Your task to perform on an android device: Open Yahoo.com Image 0: 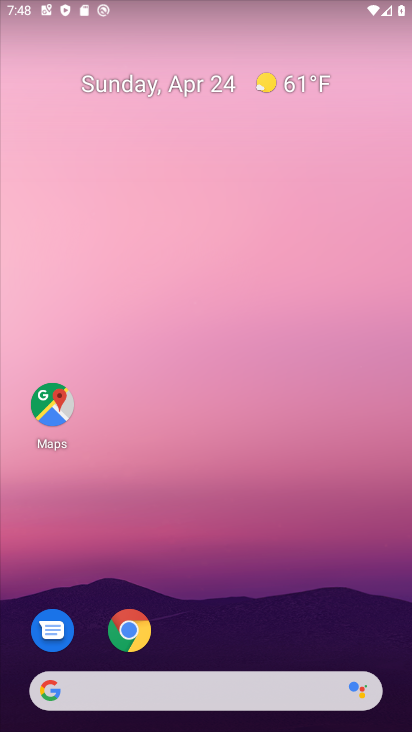
Step 0: drag from (320, 623) to (329, 167)
Your task to perform on an android device: Open Yahoo.com Image 1: 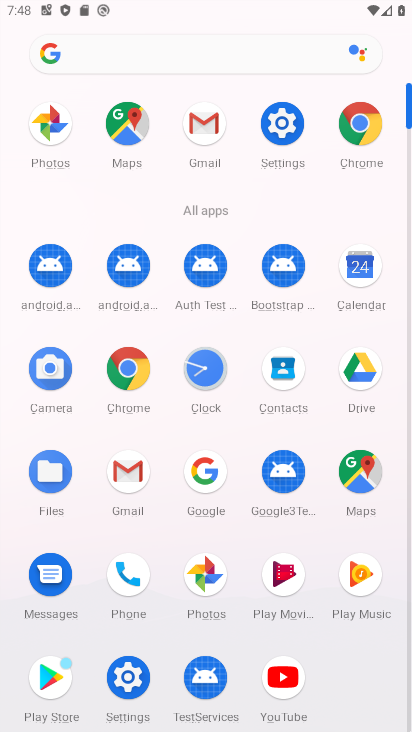
Step 1: click (372, 134)
Your task to perform on an android device: Open Yahoo.com Image 2: 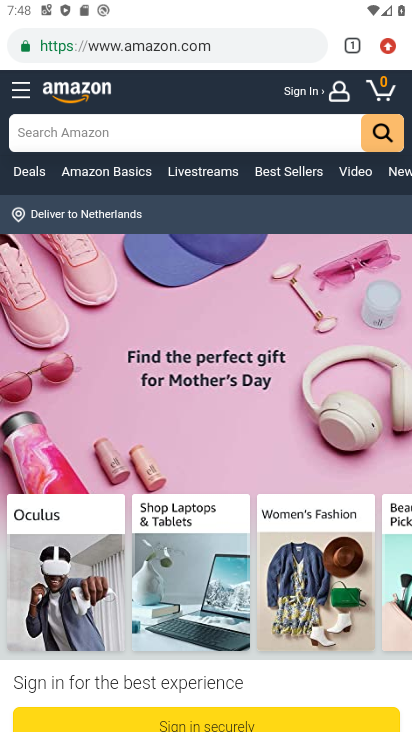
Step 2: press back button
Your task to perform on an android device: Open Yahoo.com Image 3: 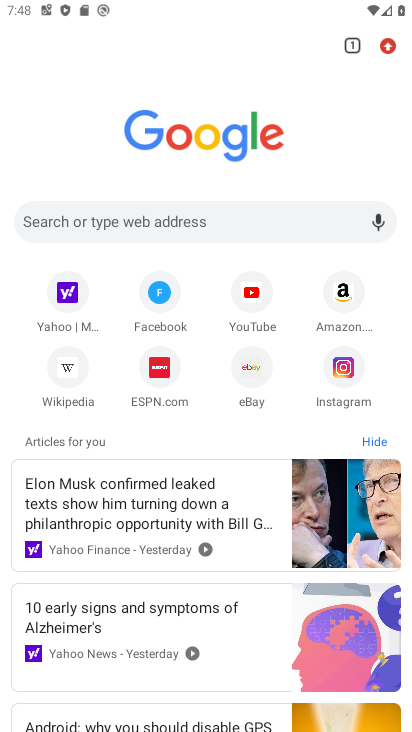
Step 3: click (68, 289)
Your task to perform on an android device: Open Yahoo.com Image 4: 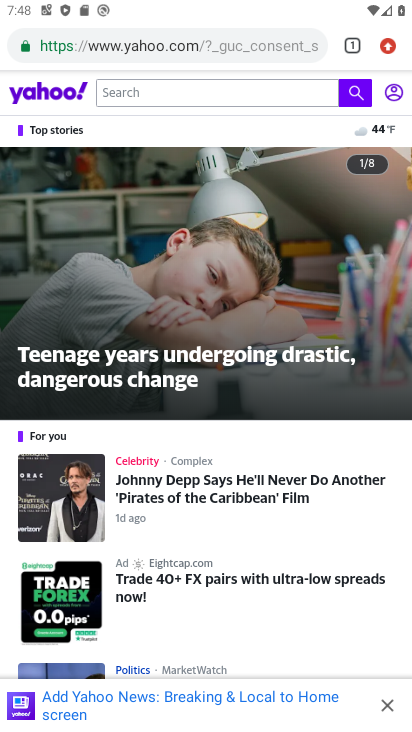
Step 4: task complete